Your task to perform on an android device: Open the map Image 0: 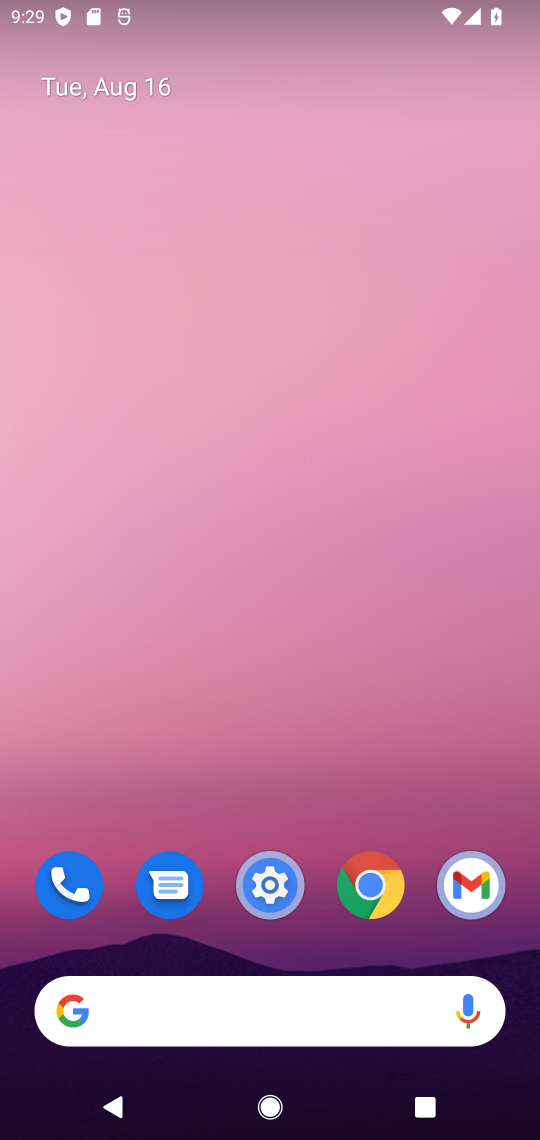
Step 0: drag from (261, 904) to (271, 126)
Your task to perform on an android device: Open the map Image 1: 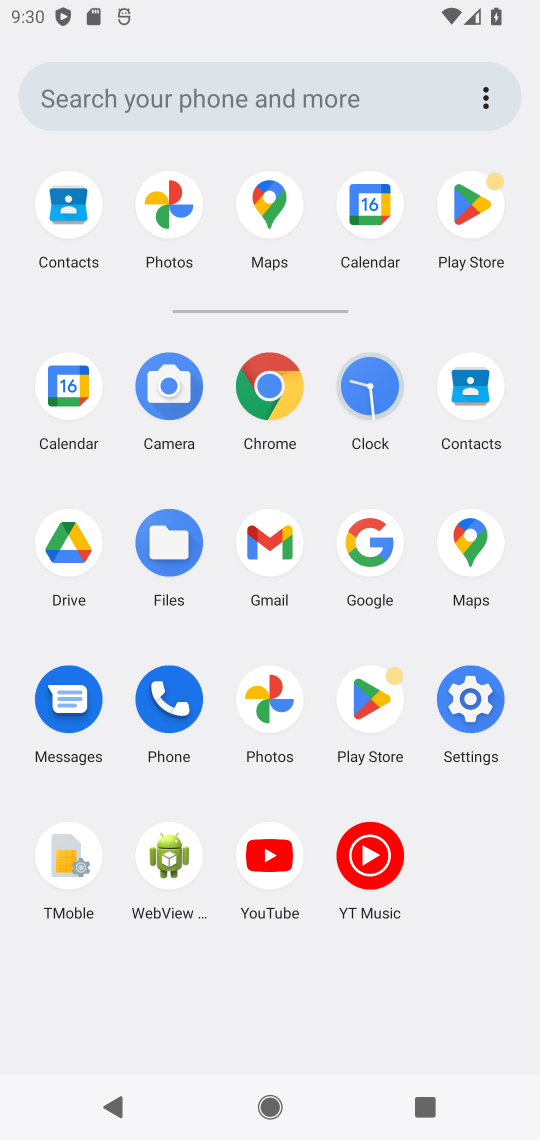
Step 1: click (471, 549)
Your task to perform on an android device: Open the map Image 2: 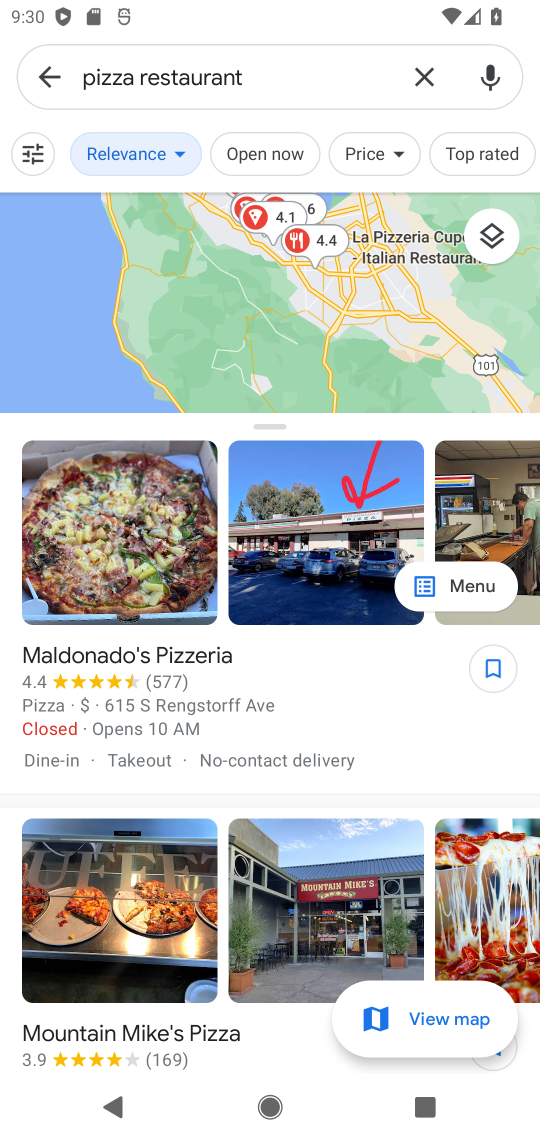
Step 2: task complete